Your task to perform on an android device: toggle notifications settings in the gmail app Image 0: 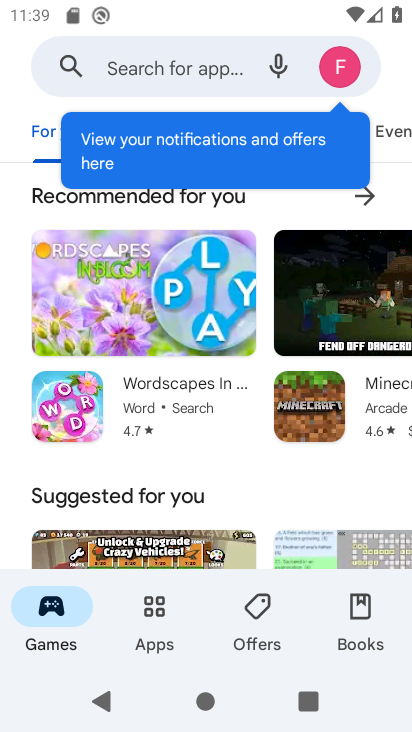
Step 0: task complete